Your task to perform on an android device: turn pop-ups off in chrome Image 0: 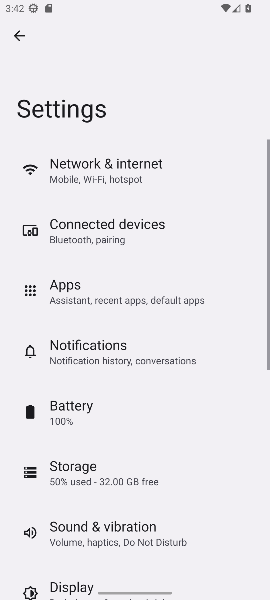
Step 0: drag from (206, 555) to (62, 25)
Your task to perform on an android device: turn pop-ups off in chrome Image 1: 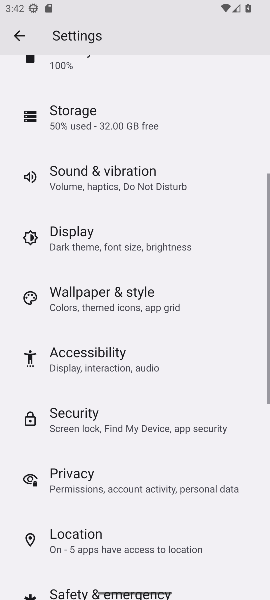
Step 1: click (24, 36)
Your task to perform on an android device: turn pop-ups off in chrome Image 2: 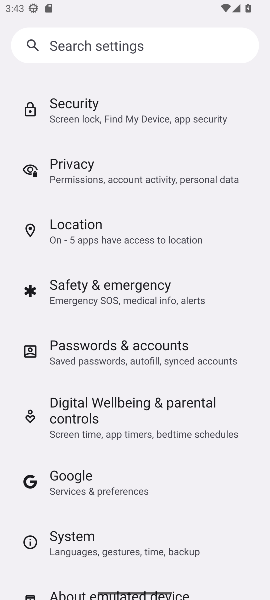
Step 2: press back button
Your task to perform on an android device: turn pop-ups off in chrome Image 3: 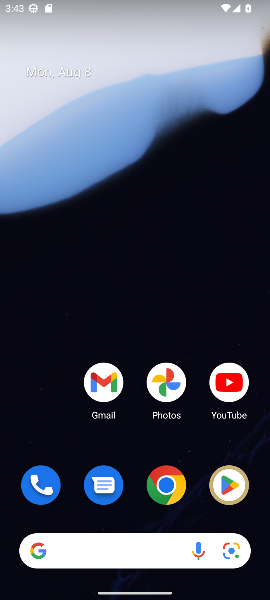
Step 3: drag from (145, 533) to (96, 124)
Your task to perform on an android device: turn pop-ups off in chrome Image 4: 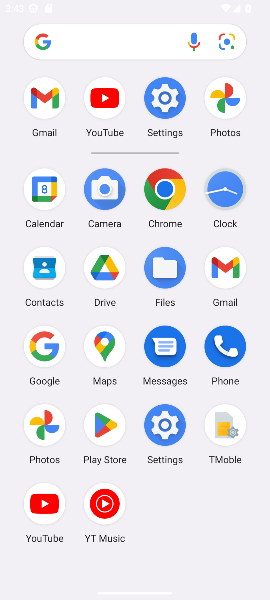
Step 4: drag from (124, 391) to (121, 123)
Your task to perform on an android device: turn pop-ups off in chrome Image 5: 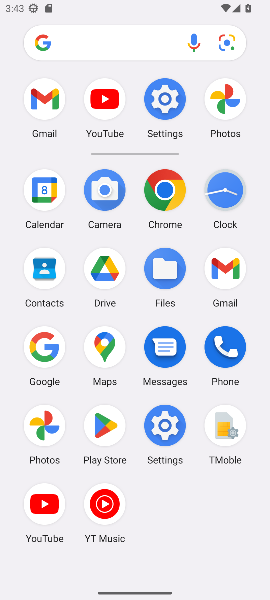
Step 5: click (166, 184)
Your task to perform on an android device: turn pop-ups off in chrome Image 6: 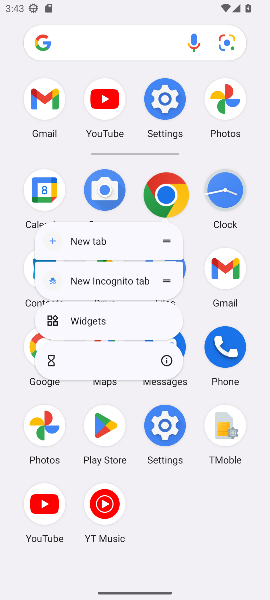
Step 6: click (169, 192)
Your task to perform on an android device: turn pop-ups off in chrome Image 7: 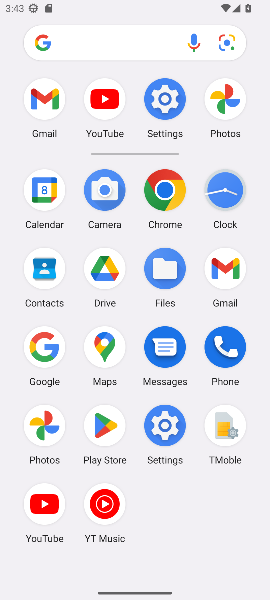
Step 7: click (166, 193)
Your task to perform on an android device: turn pop-ups off in chrome Image 8: 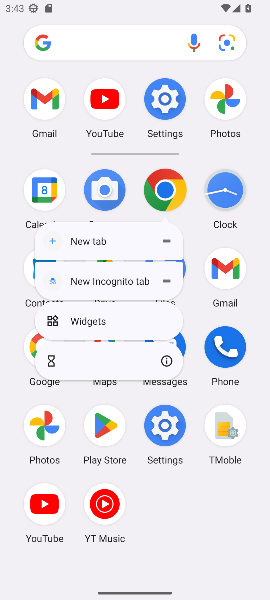
Step 8: click (165, 194)
Your task to perform on an android device: turn pop-ups off in chrome Image 9: 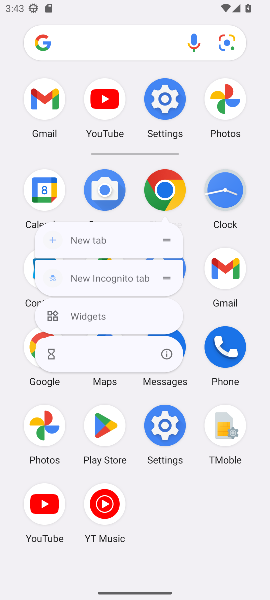
Step 9: click (165, 194)
Your task to perform on an android device: turn pop-ups off in chrome Image 10: 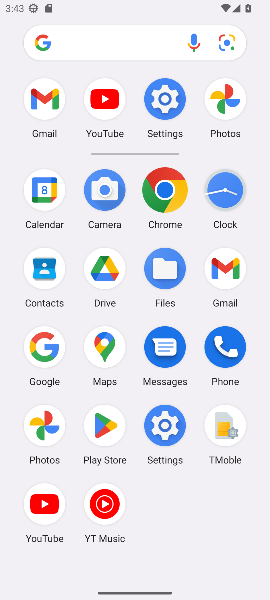
Step 10: click (164, 194)
Your task to perform on an android device: turn pop-ups off in chrome Image 11: 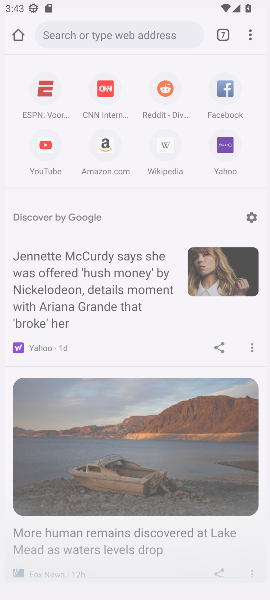
Step 11: click (164, 194)
Your task to perform on an android device: turn pop-ups off in chrome Image 12: 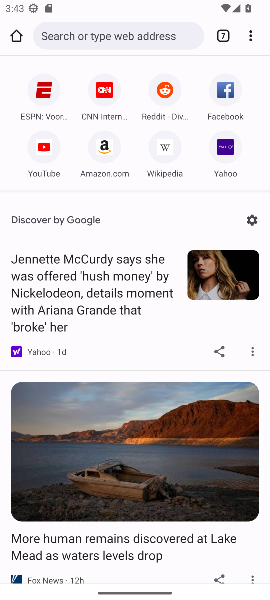
Step 12: click (168, 192)
Your task to perform on an android device: turn pop-ups off in chrome Image 13: 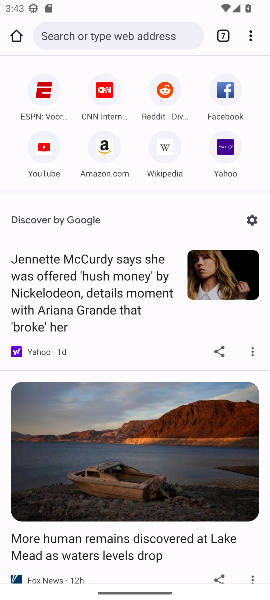
Step 13: drag from (245, 33) to (142, 322)
Your task to perform on an android device: turn pop-ups off in chrome Image 14: 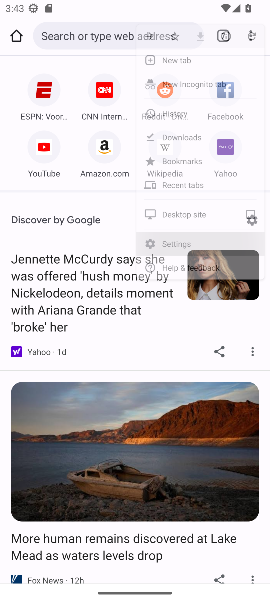
Step 14: click (142, 322)
Your task to perform on an android device: turn pop-ups off in chrome Image 15: 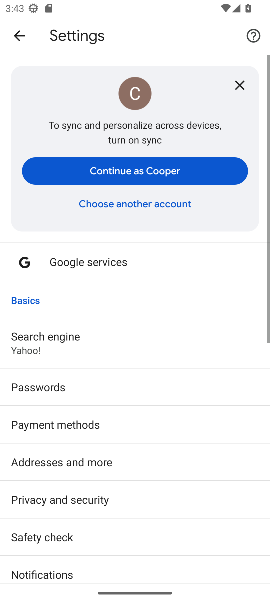
Step 15: drag from (62, 505) to (47, 227)
Your task to perform on an android device: turn pop-ups off in chrome Image 16: 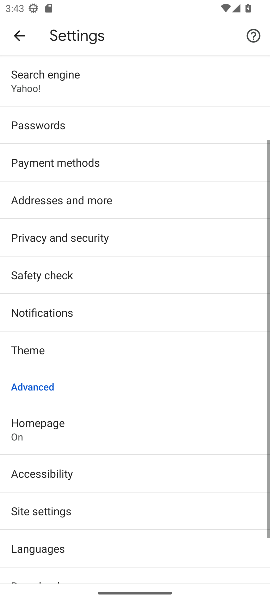
Step 16: drag from (60, 476) to (62, 248)
Your task to perform on an android device: turn pop-ups off in chrome Image 17: 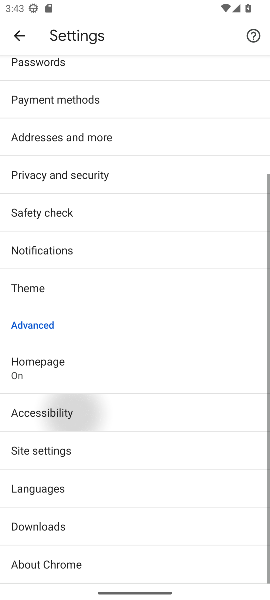
Step 17: drag from (95, 482) to (78, 283)
Your task to perform on an android device: turn pop-ups off in chrome Image 18: 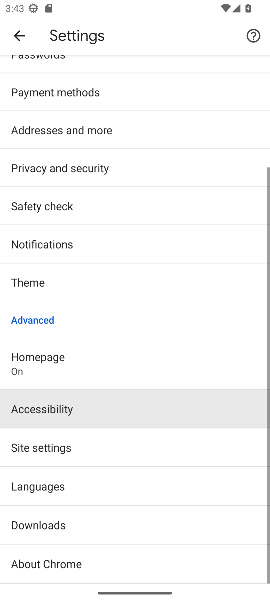
Step 18: drag from (43, 495) to (38, 230)
Your task to perform on an android device: turn pop-ups off in chrome Image 19: 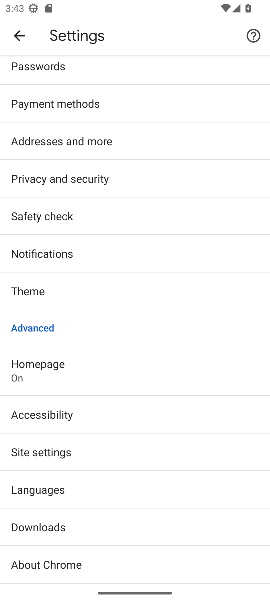
Step 19: click (29, 450)
Your task to perform on an android device: turn pop-ups off in chrome Image 20: 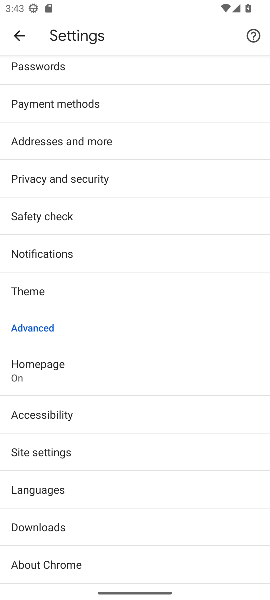
Step 20: click (28, 451)
Your task to perform on an android device: turn pop-ups off in chrome Image 21: 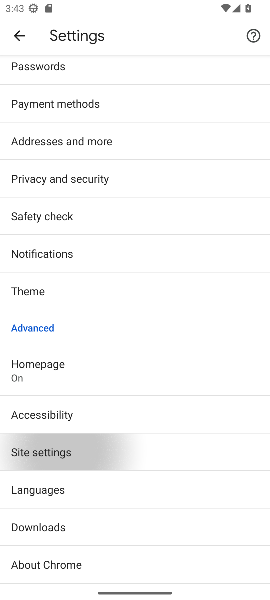
Step 21: click (28, 451)
Your task to perform on an android device: turn pop-ups off in chrome Image 22: 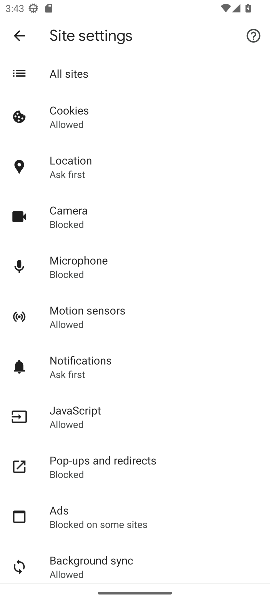
Step 22: click (74, 468)
Your task to perform on an android device: turn pop-ups off in chrome Image 23: 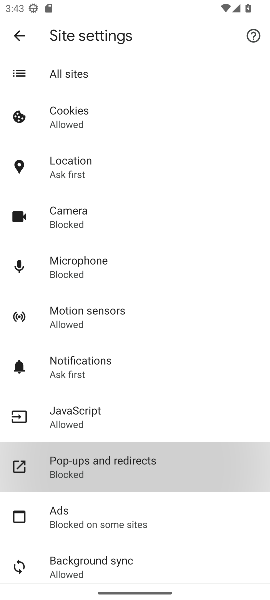
Step 23: click (75, 467)
Your task to perform on an android device: turn pop-ups off in chrome Image 24: 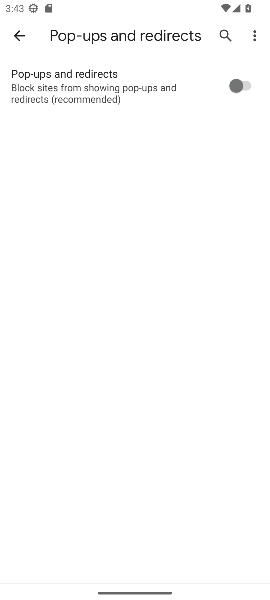
Step 24: click (230, 88)
Your task to perform on an android device: turn pop-ups off in chrome Image 25: 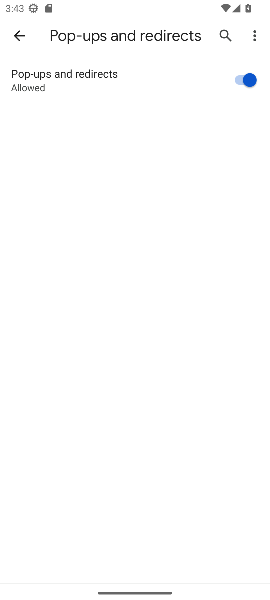
Step 25: click (248, 78)
Your task to perform on an android device: turn pop-ups off in chrome Image 26: 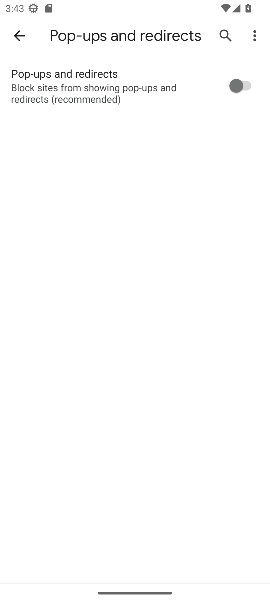
Step 26: task complete